Your task to perform on an android device: install app "Pluto TV - Live TV and Movies" Image 0: 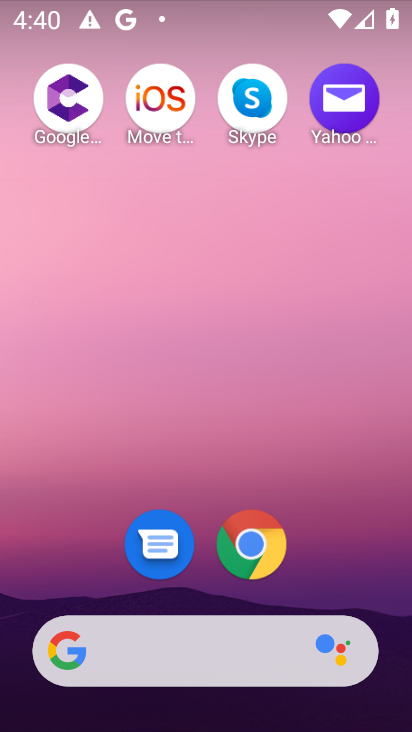
Step 0: click (404, 505)
Your task to perform on an android device: install app "Pluto TV - Live TV and Movies" Image 1: 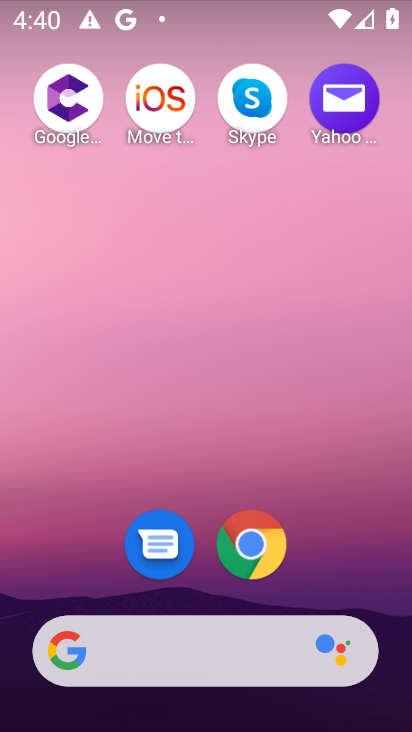
Step 1: drag from (263, 268) to (222, 69)
Your task to perform on an android device: install app "Pluto TV - Live TV and Movies" Image 2: 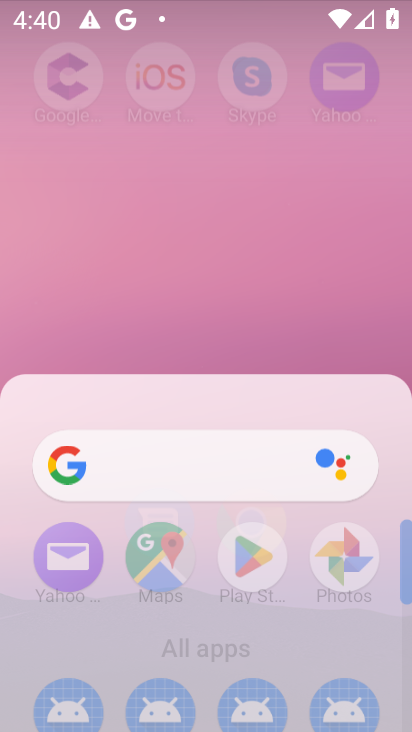
Step 2: drag from (212, 621) to (162, 181)
Your task to perform on an android device: install app "Pluto TV - Live TV and Movies" Image 3: 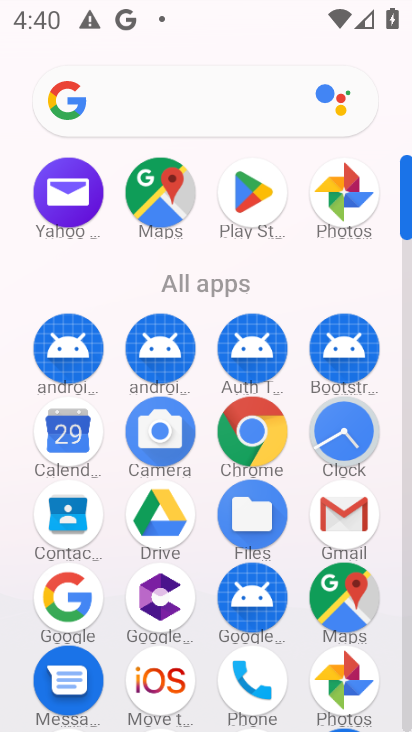
Step 3: drag from (217, 571) to (149, 37)
Your task to perform on an android device: install app "Pluto TV - Live TV and Movies" Image 4: 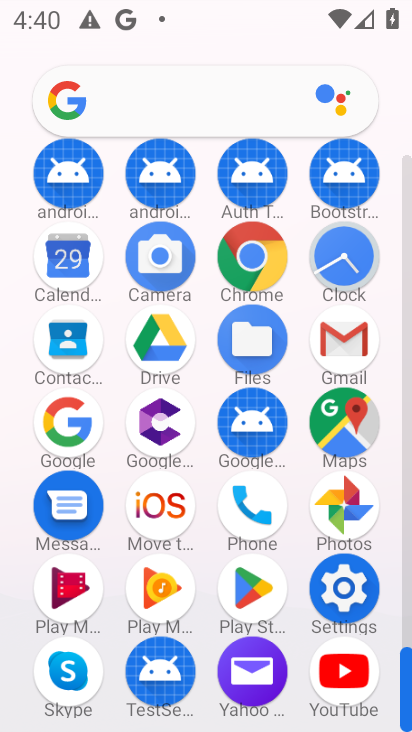
Step 4: drag from (230, 603) to (244, 322)
Your task to perform on an android device: install app "Pluto TV - Live TV and Movies" Image 5: 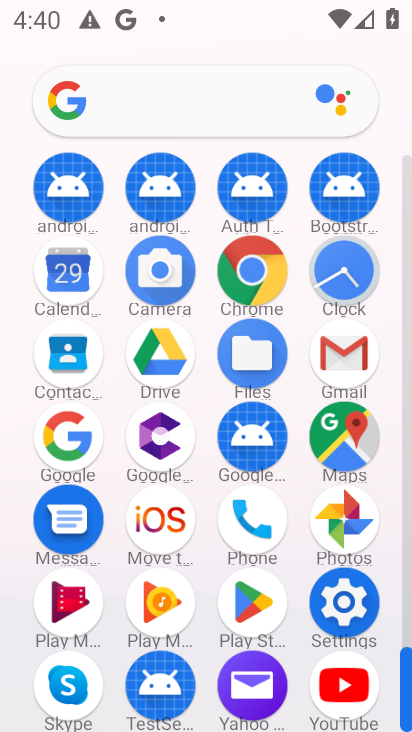
Step 5: click (258, 598)
Your task to perform on an android device: install app "Pluto TV - Live TV and Movies" Image 6: 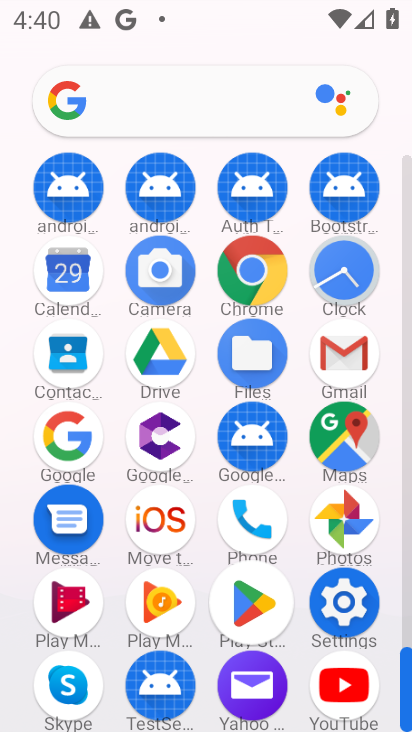
Step 6: click (258, 598)
Your task to perform on an android device: install app "Pluto TV - Live TV and Movies" Image 7: 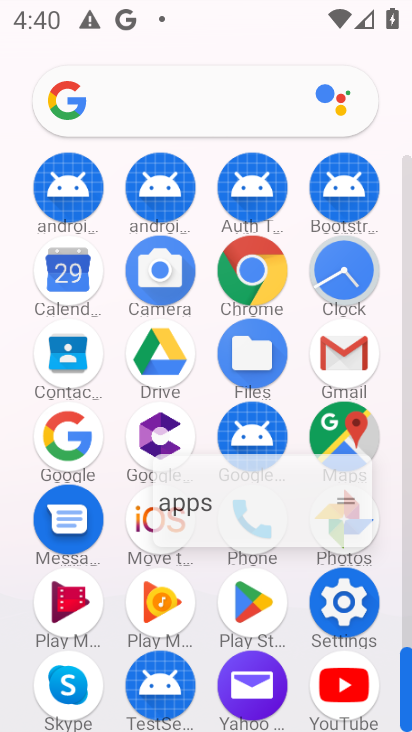
Step 7: click (258, 598)
Your task to perform on an android device: install app "Pluto TV - Live TV and Movies" Image 8: 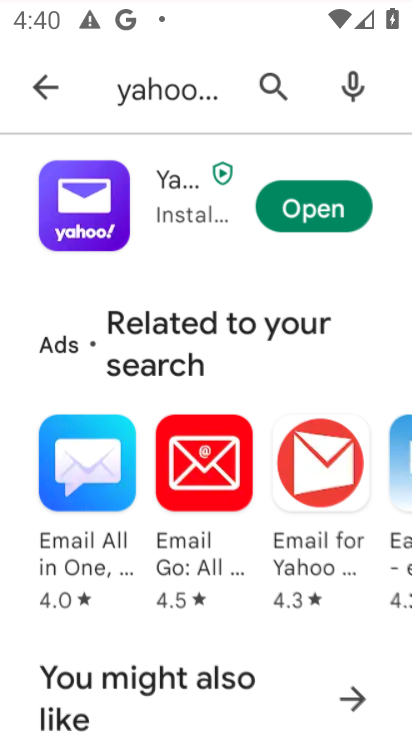
Step 8: click (256, 600)
Your task to perform on an android device: install app "Pluto TV - Live TV and Movies" Image 9: 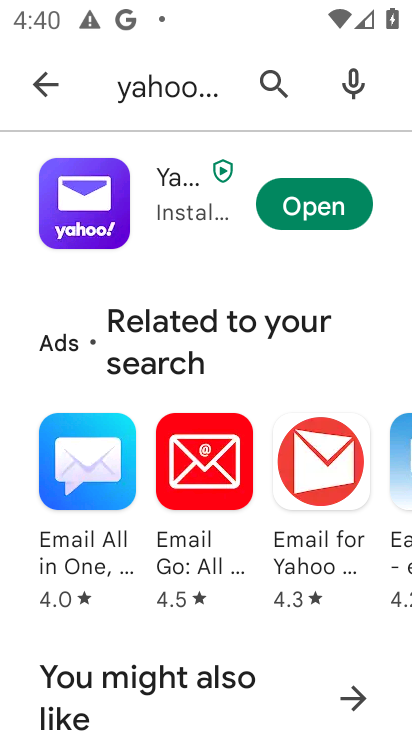
Step 9: click (256, 600)
Your task to perform on an android device: install app "Pluto TV - Live TV and Movies" Image 10: 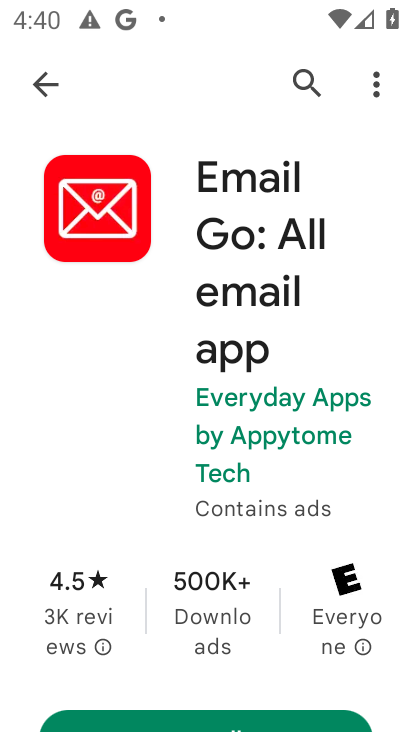
Step 10: click (25, 81)
Your task to perform on an android device: install app "Pluto TV - Live TV and Movies" Image 11: 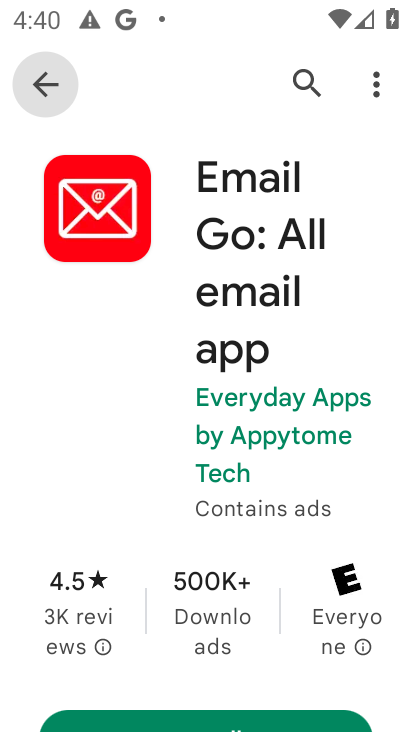
Step 11: click (35, 89)
Your task to perform on an android device: install app "Pluto TV - Live TV and Movies" Image 12: 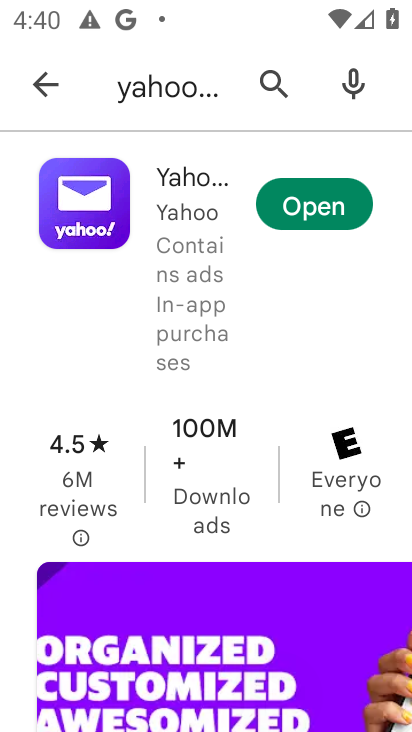
Step 12: click (36, 89)
Your task to perform on an android device: install app "Pluto TV - Live TV and Movies" Image 13: 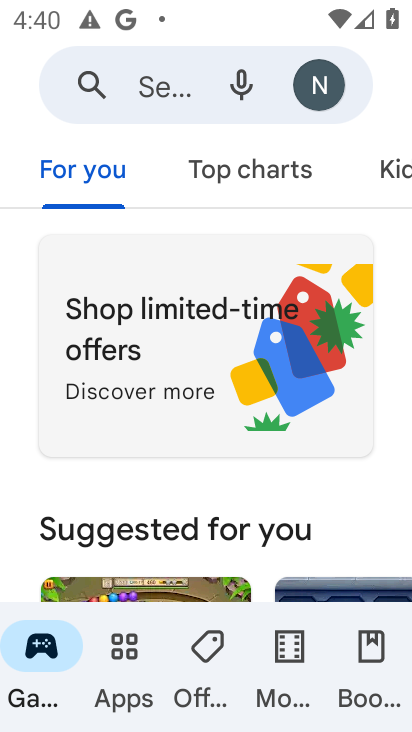
Step 13: click (167, 83)
Your task to perform on an android device: install app "Pluto TV - Live TV and Movies" Image 14: 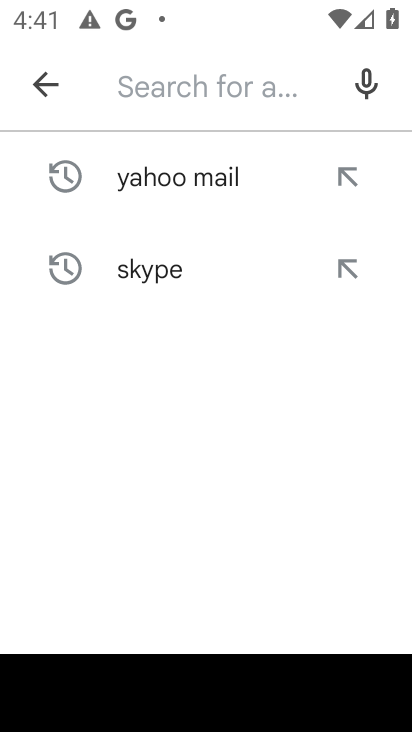
Step 14: type "Pluto Tv - Live and movies"
Your task to perform on an android device: install app "Pluto TV - Live TV and Movies" Image 15: 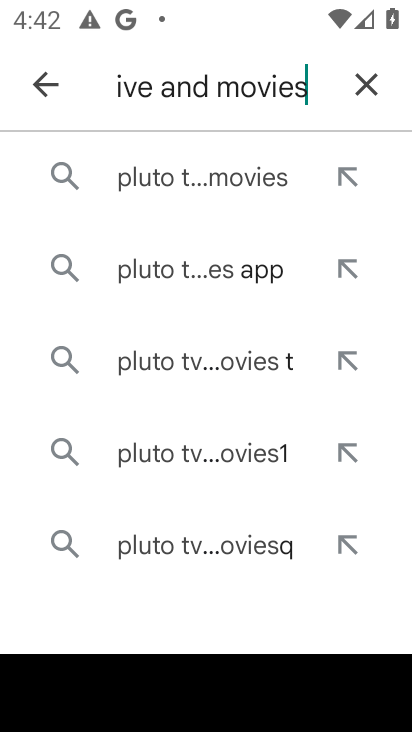
Step 15: click (252, 186)
Your task to perform on an android device: install app "Pluto TV - Live TV and Movies" Image 16: 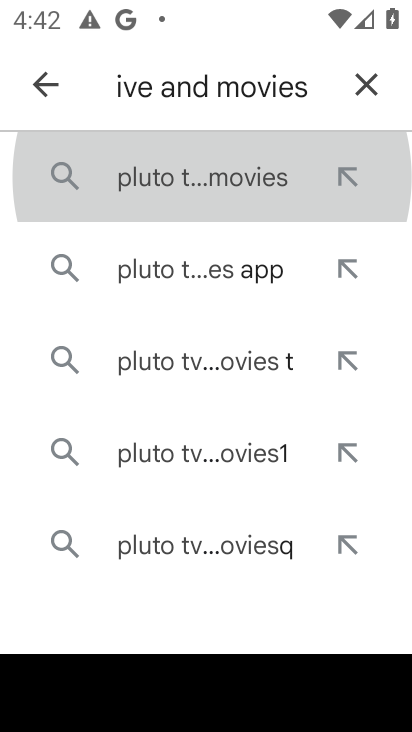
Step 16: click (252, 185)
Your task to perform on an android device: install app "Pluto TV - Live TV and Movies" Image 17: 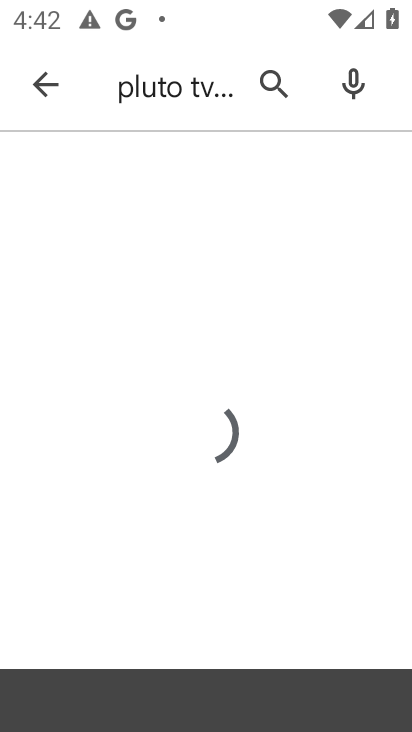
Step 17: click (252, 185)
Your task to perform on an android device: install app "Pluto TV - Live TV and Movies" Image 18: 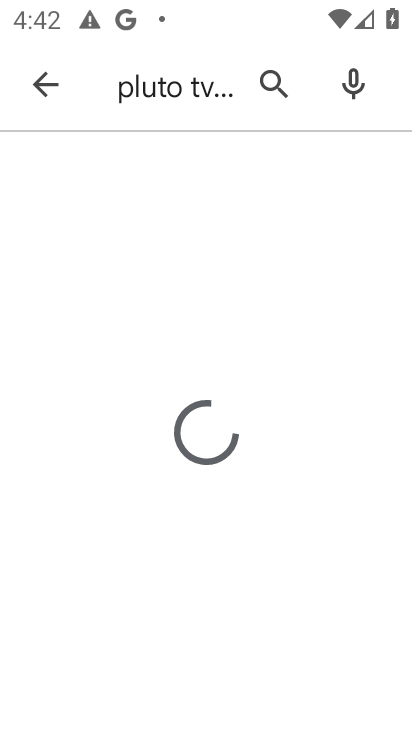
Step 18: click (252, 185)
Your task to perform on an android device: install app "Pluto TV - Live TV and Movies" Image 19: 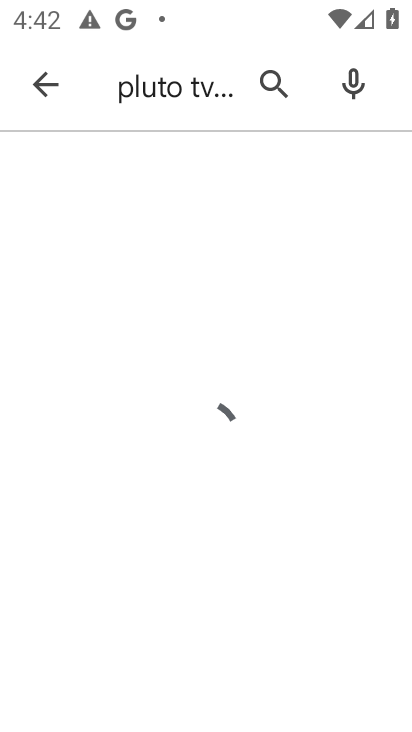
Step 19: click (252, 185)
Your task to perform on an android device: install app "Pluto TV - Live TV and Movies" Image 20: 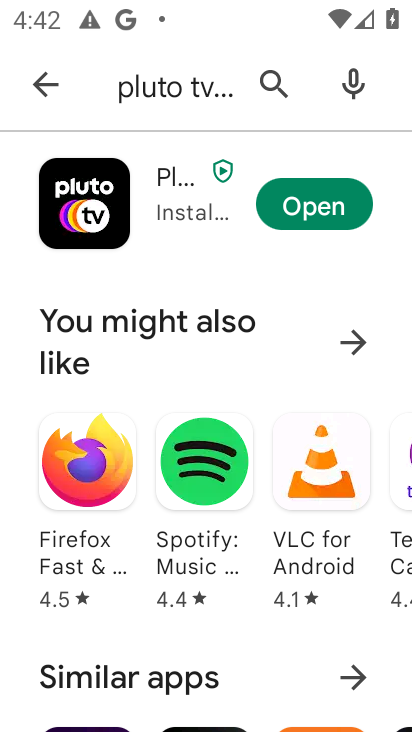
Step 20: click (289, 202)
Your task to perform on an android device: install app "Pluto TV - Live TV and Movies" Image 21: 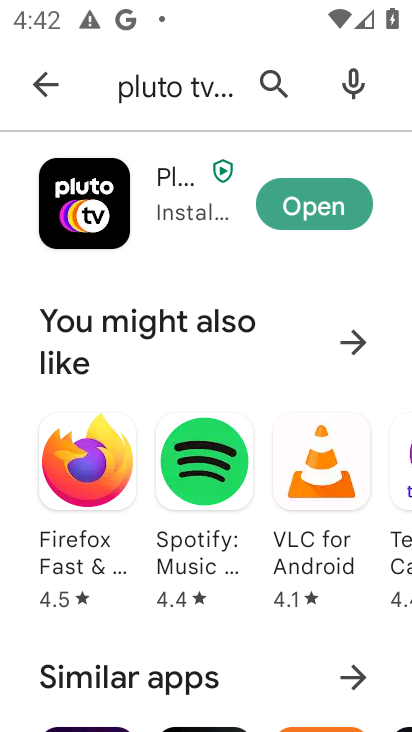
Step 21: click (289, 201)
Your task to perform on an android device: install app "Pluto TV - Live TV and Movies" Image 22: 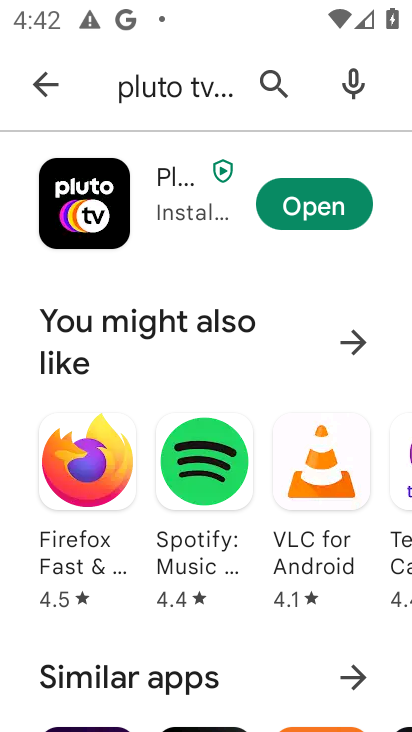
Step 22: click (292, 201)
Your task to perform on an android device: install app "Pluto TV - Live TV and Movies" Image 23: 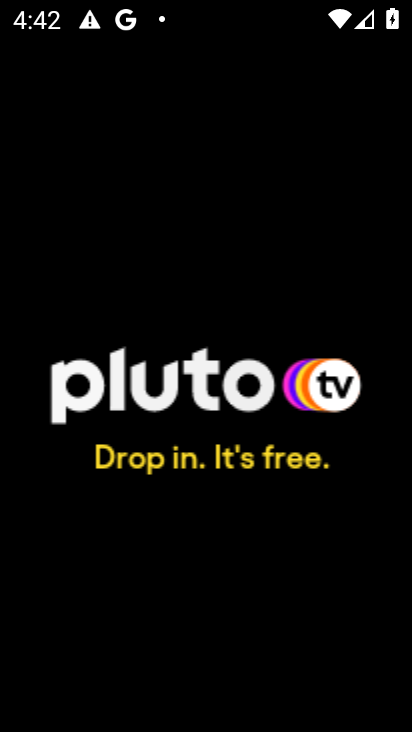
Step 23: task complete